Your task to perform on an android device: Go to Amazon Image 0: 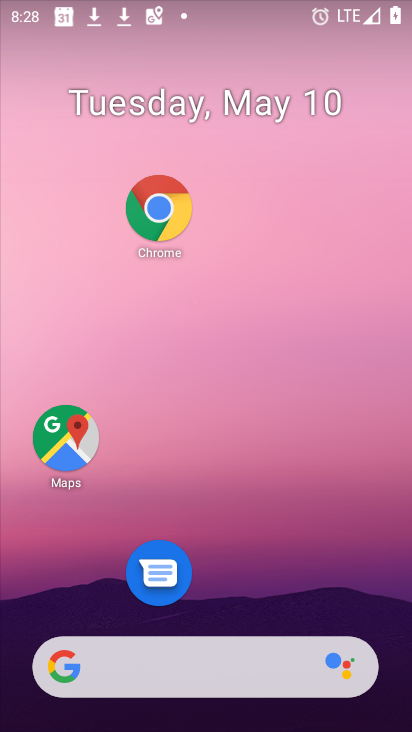
Step 0: drag from (291, 690) to (350, 227)
Your task to perform on an android device: Go to Amazon Image 1: 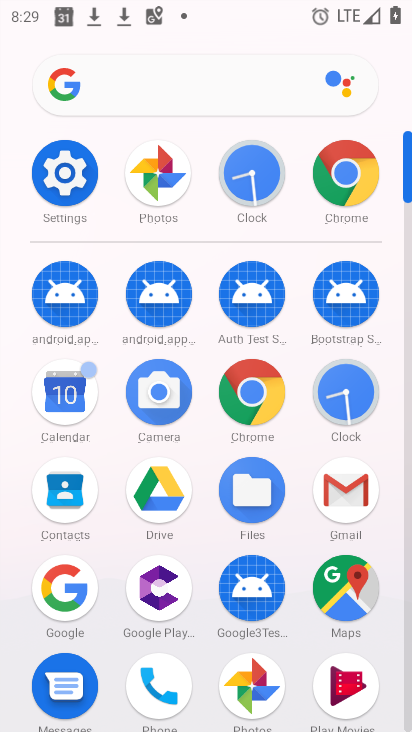
Step 1: click (355, 192)
Your task to perform on an android device: Go to Amazon Image 2: 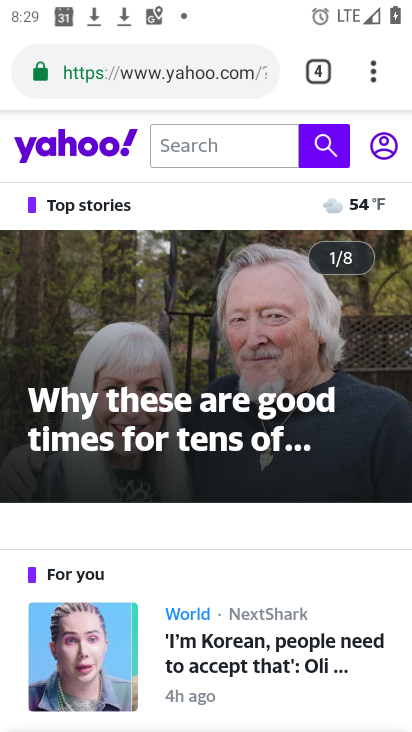
Step 2: click (308, 74)
Your task to perform on an android device: Go to Amazon Image 3: 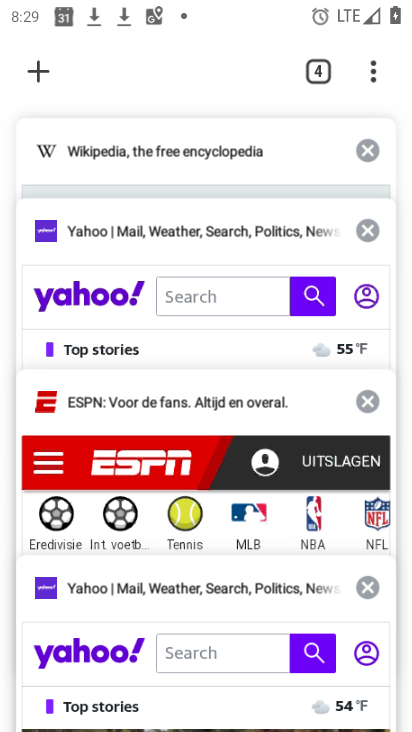
Step 3: click (40, 70)
Your task to perform on an android device: Go to Amazon Image 4: 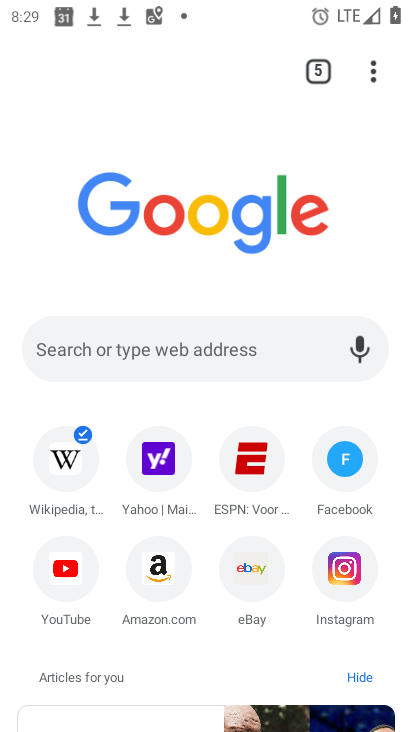
Step 4: click (154, 578)
Your task to perform on an android device: Go to Amazon Image 5: 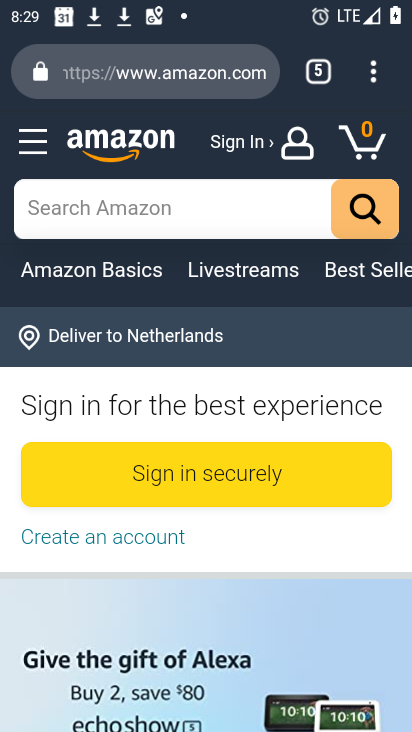
Step 5: task complete